Your task to perform on an android device: Open eBay Image 0: 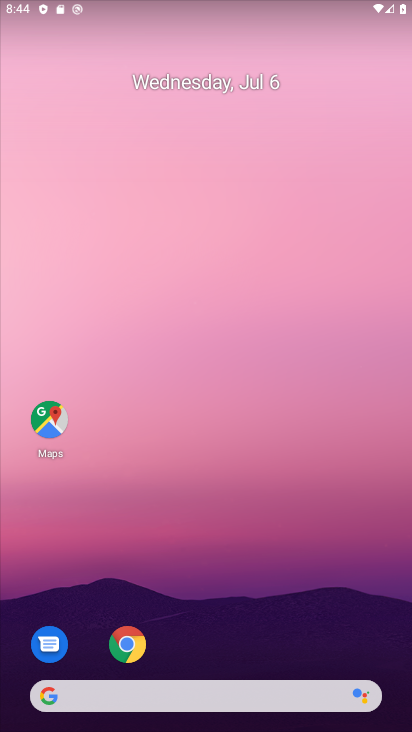
Step 0: click (347, 3)
Your task to perform on an android device: Open eBay Image 1: 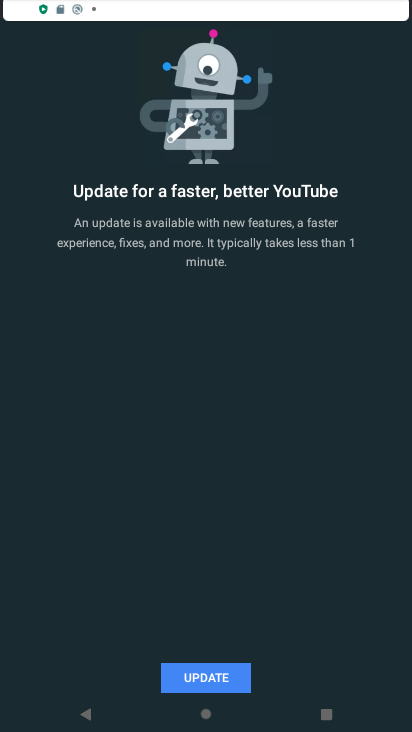
Step 1: press home button
Your task to perform on an android device: Open eBay Image 2: 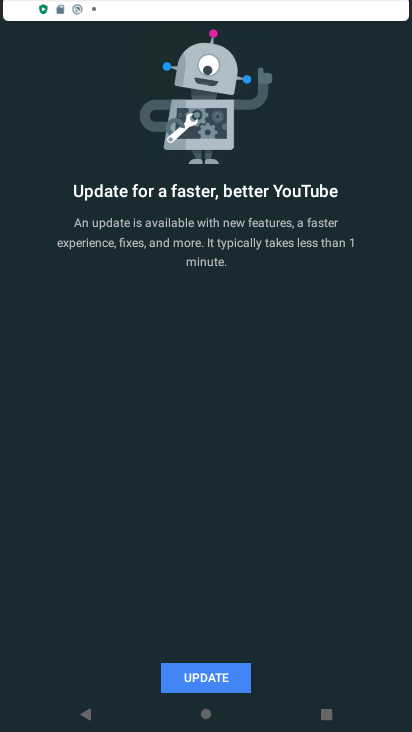
Step 2: drag from (347, 3) to (395, 621)
Your task to perform on an android device: Open eBay Image 3: 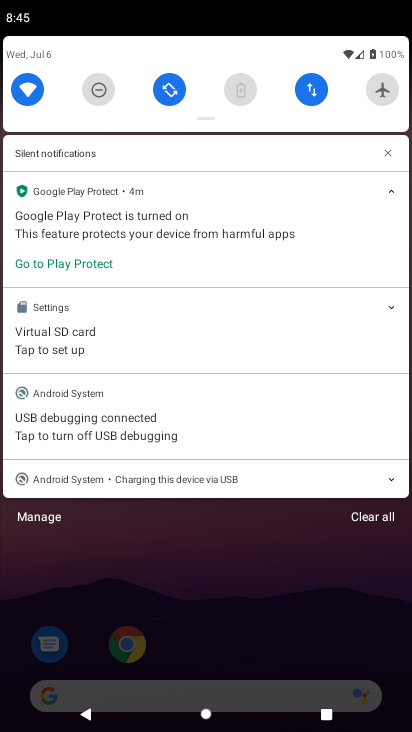
Step 3: drag from (213, 607) to (216, 72)
Your task to perform on an android device: Open eBay Image 4: 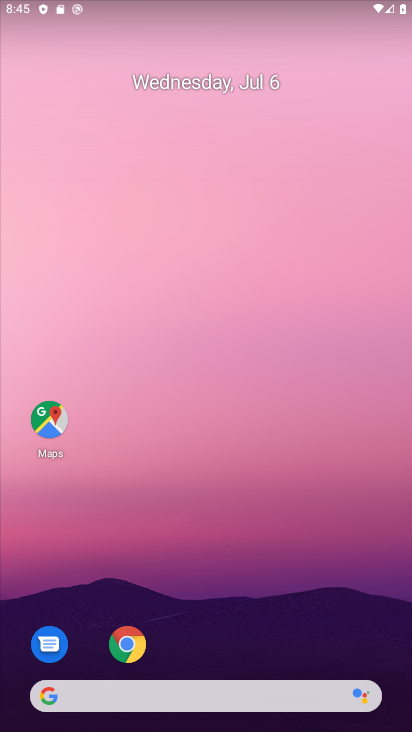
Step 4: drag from (212, 680) to (317, 2)
Your task to perform on an android device: Open eBay Image 5: 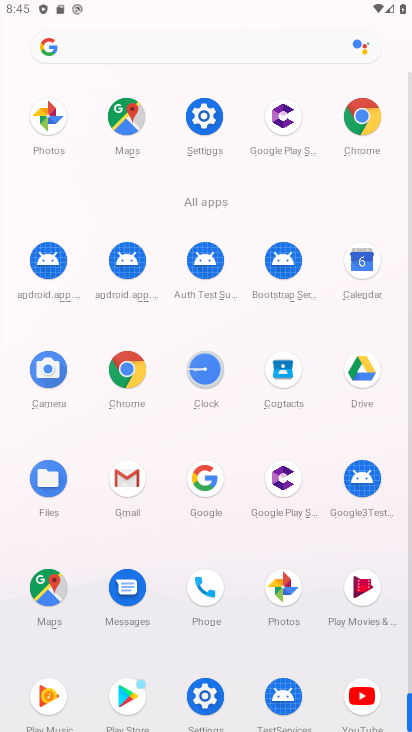
Step 5: click (361, 116)
Your task to perform on an android device: Open eBay Image 6: 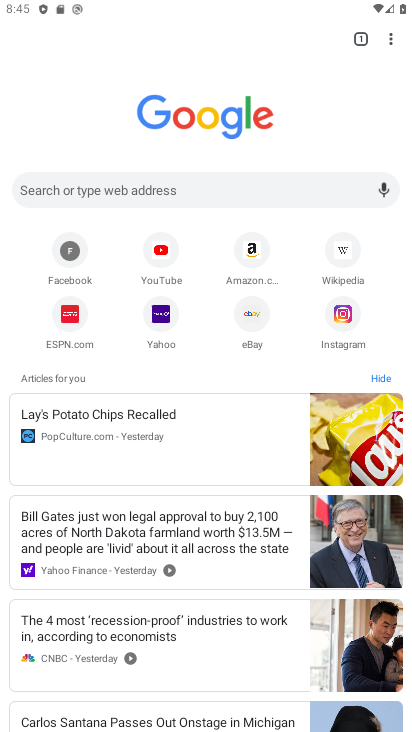
Step 6: click (255, 317)
Your task to perform on an android device: Open eBay Image 7: 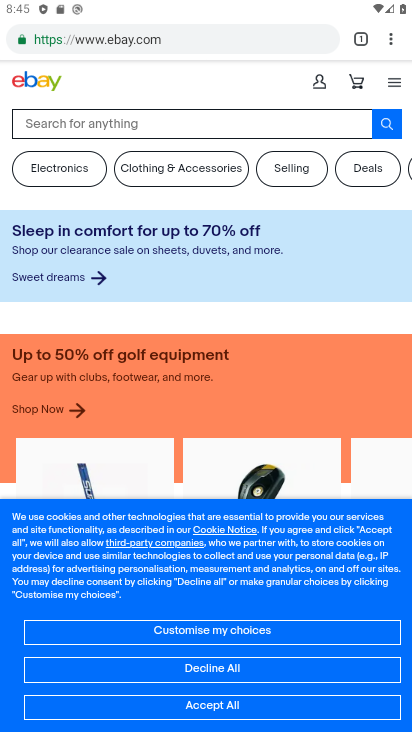
Step 7: task complete